Your task to perform on an android device: open app "Microsoft Excel" Image 0: 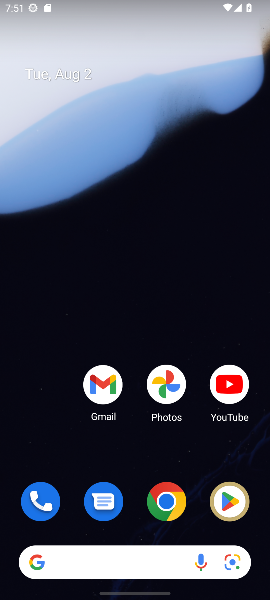
Step 0: drag from (235, 7) to (89, 277)
Your task to perform on an android device: open app "Microsoft Excel" Image 1: 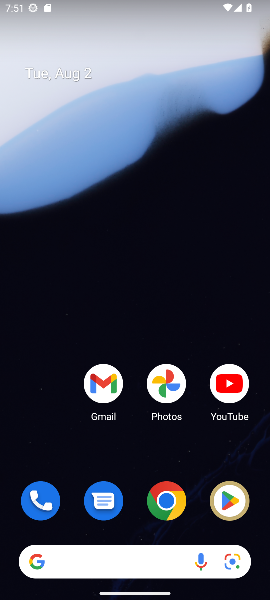
Step 1: drag from (142, 523) to (138, 48)
Your task to perform on an android device: open app "Microsoft Excel" Image 2: 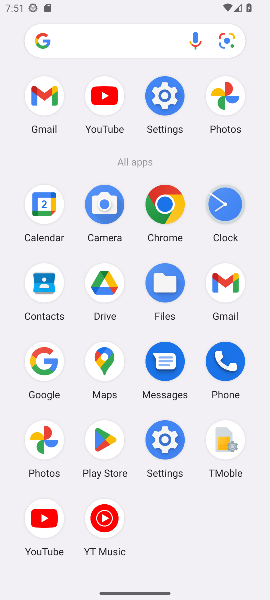
Step 2: click (113, 428)
Your task to perform on an android device: open app "Microsoft Excel" Image 3: 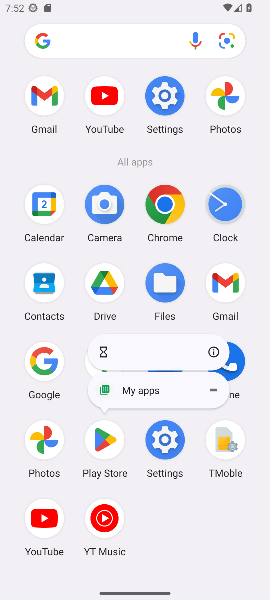
Step 3: click (219, 349)
Your task to perform on an android device: open app "Microsoft Excel" Image 4: 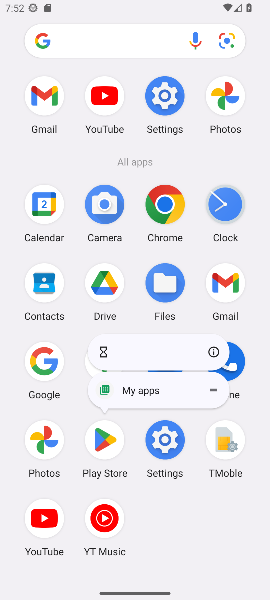
Step 4: click (220, 357)
Your task to perform on an android device: open app "Microsoft Excel" Image 5: 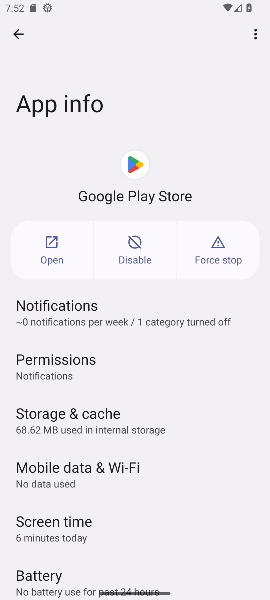
Step 5: click (51, 254)
Your task to perform on an android device: open app "Microsoft Excel" Image 6: 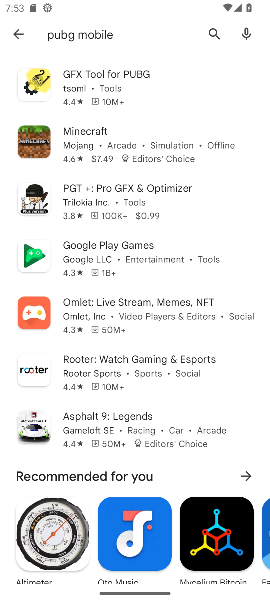
Step 6: drag from (137, 110) to (212, 599)
Your task to perform on an android device: open app "Microsoft Excel" Image 7: 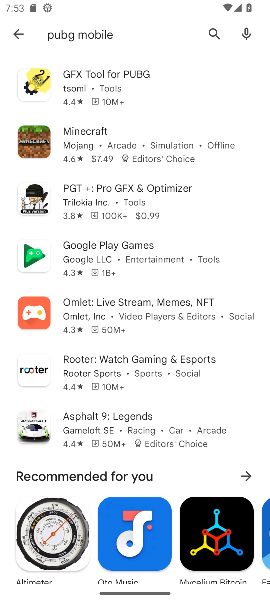
Step 7: drag from (171, 201) to (253, 596)
Your task to perform on an android device: open app "Microsoft Excel" Image 8: 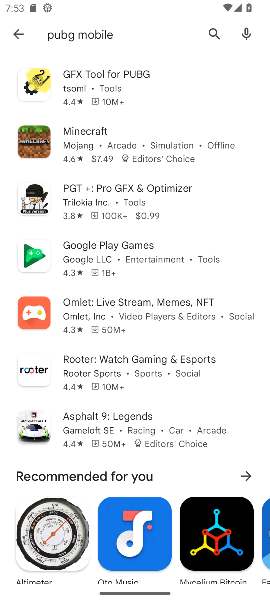
Step 8: drag from (122, 195) to (197, 538)
Your task to perform on an android device: open app "Microsoft Excel" Image 9: 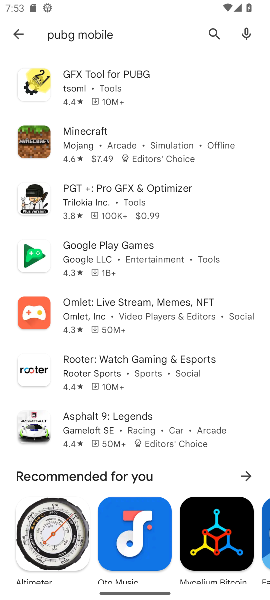
Step 9: drag from (138, 86) to (217, 571)
Your task to perform on an android device: open app "Microsoft Excel" Image 10: 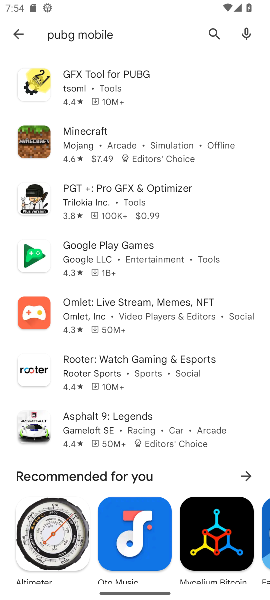
Step 10: drag from (167, 142) to (233, 486)
Your task to perform on an android device: open app "Microsoft Excel" Image 11: 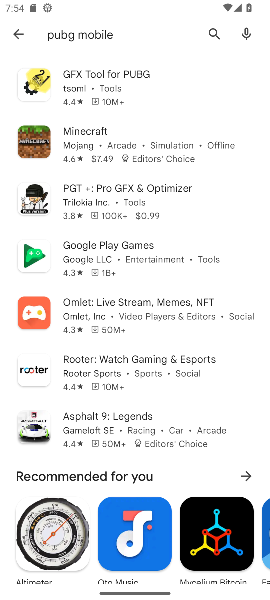
Step 11: drag from (138, 152) to (235, 592)
Your task to perform on an android device: open app "Microsoft Excel" Image 12: 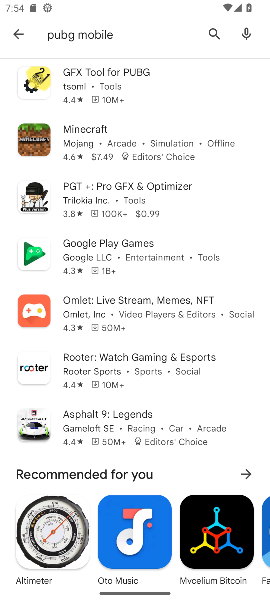
Step 12: click (205, 36)
Your task to perform on an android device: open app "Microsoft Excel" Image 13: 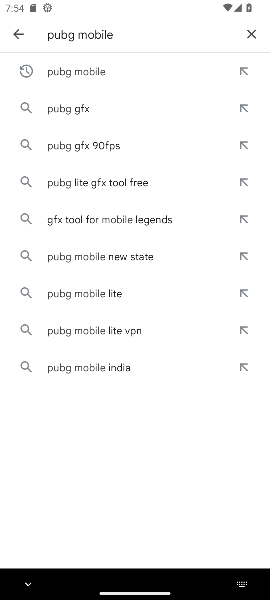
Step 13: click (255, 34)
Your task to perform on an android device: open app "Microsoft Excel" Image 14: 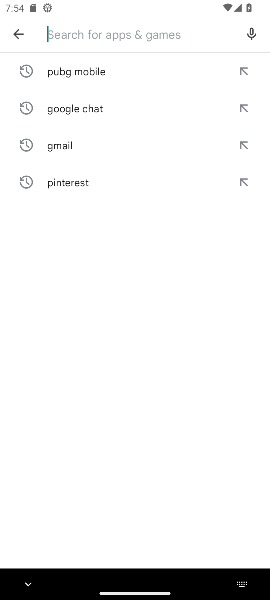
Step 14: type "Microsoft Excel"
Your task to perform on an android device: open app "Microsoft Excel" Image 15: 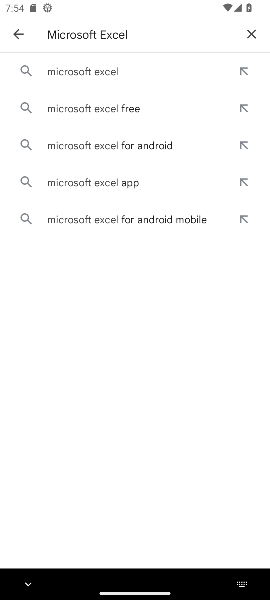
Step 15: type ""
Your task to perform on an android device: open app "Microsoft Excel" Image 16: 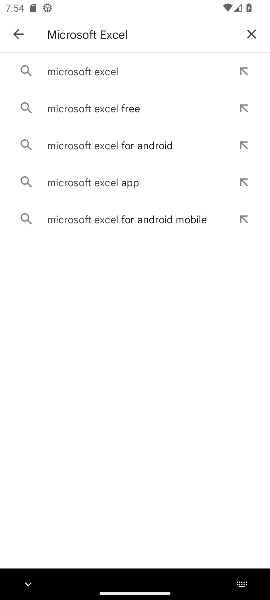
Step 16: click (125, 73)
Your task to perform on an android device: open app "Microsoft Excel" Image 17: 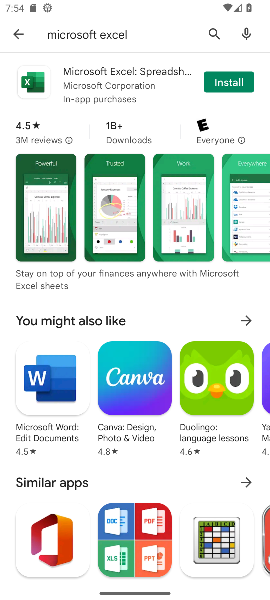
Step 17: click (105, 86)
Your task to perform on an android device: open app "Microsoft Excel" Image 18: 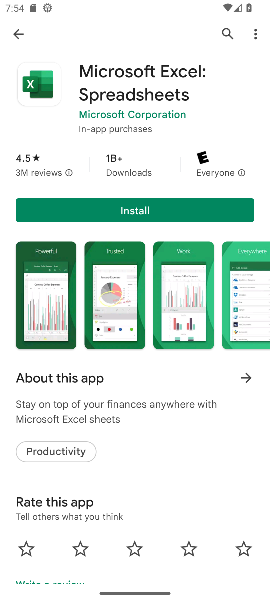
Step 18: task complete